Your task to perform on an android device: Toggle the flashlight Image 0: 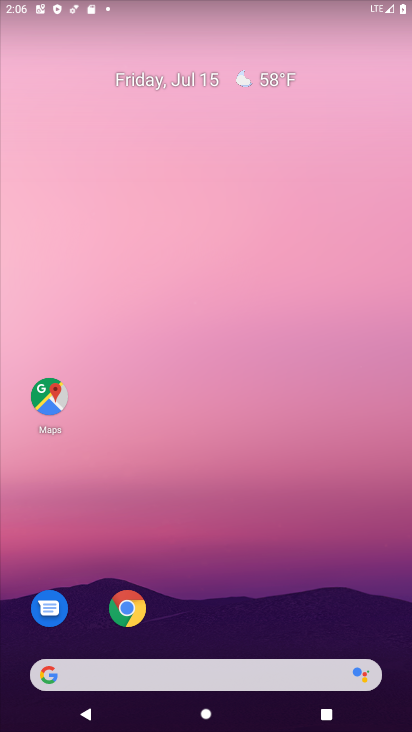
Step 0: drag from (297, 571) to (304, 215)
Your task to perform on an android device: Toggle the flashlight Image 1: 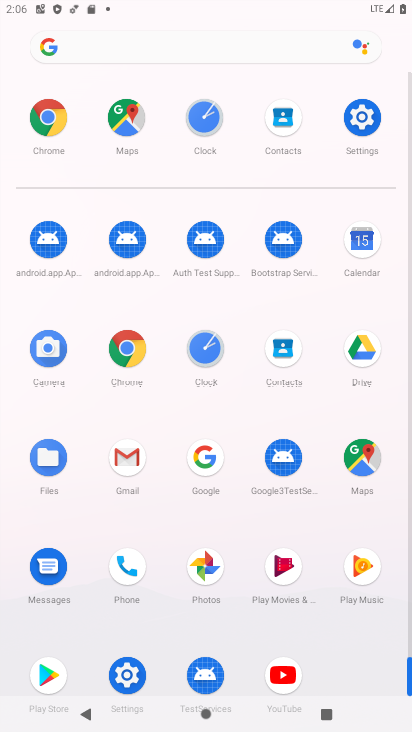
Step 1: task complete